Your task to perform on an android device: Open the stopwatch Image 0: 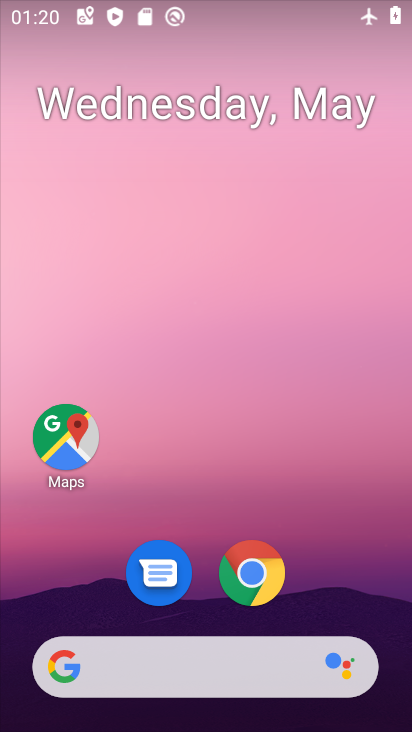
Step 0: drag from (319, 566) to (300, 270)
Your task to perform on an android device: Open the stopwatch Image 1: 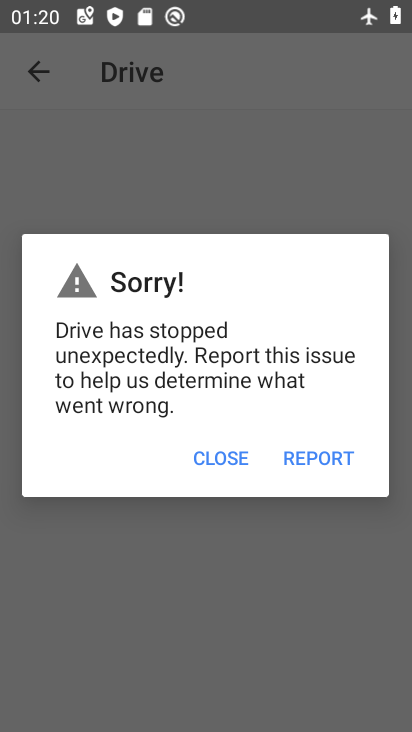
Step 1: drag from (309, 460) to (19, 422)
Your task to perform on an android device: Open the stopwatch Image 2: 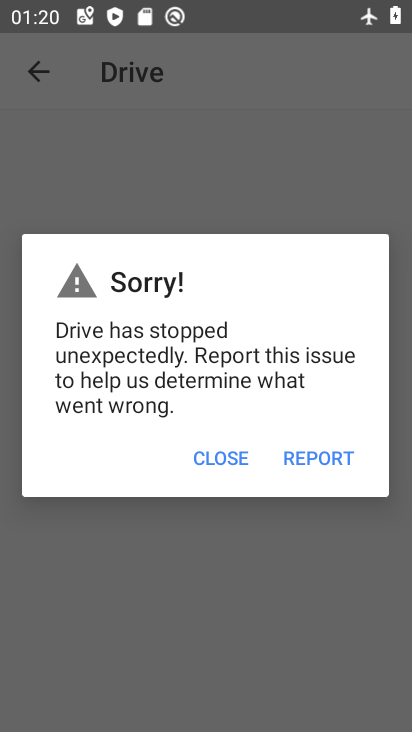
Step 2: press back button
Your task to perform on an android device: Open the stopwatch Image 3: 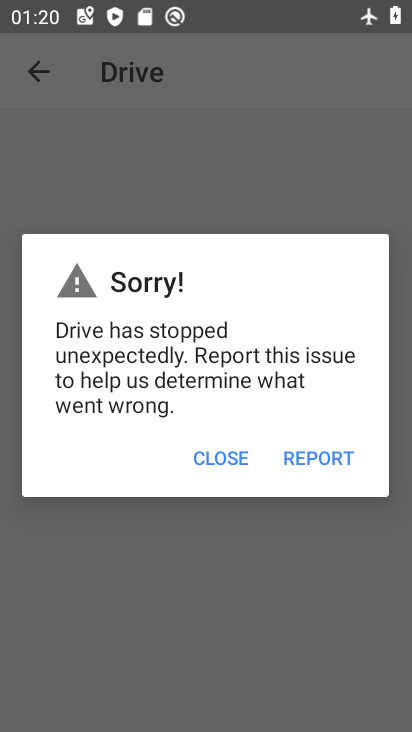
Step 3: click (224, 475)
Your task to perform on an android device: Open the stopwatch Image 4: 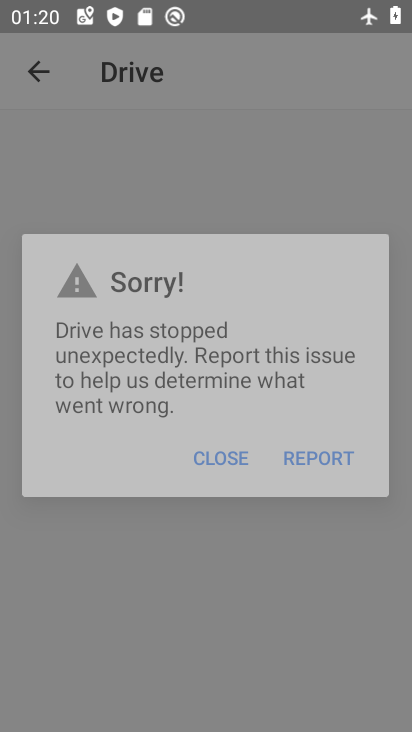
Step 4: click (224, 466)
Your task to perform on an android device: Open the stopwatch Image 5: 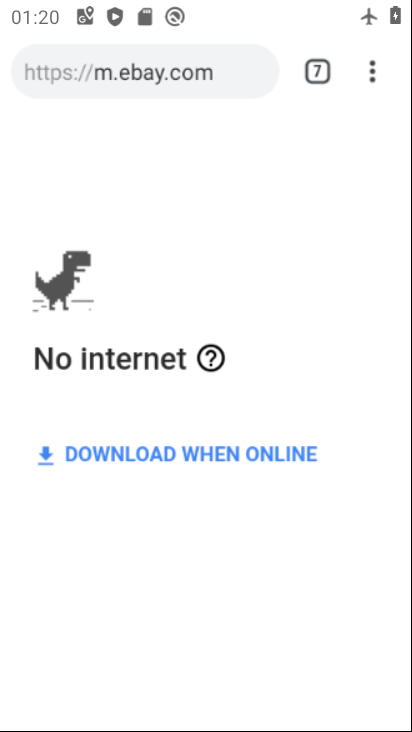
Step 5: drag from (260, 602) to (270, 545)
Your task to perform on an android device: Open the stopwatch Image 6: 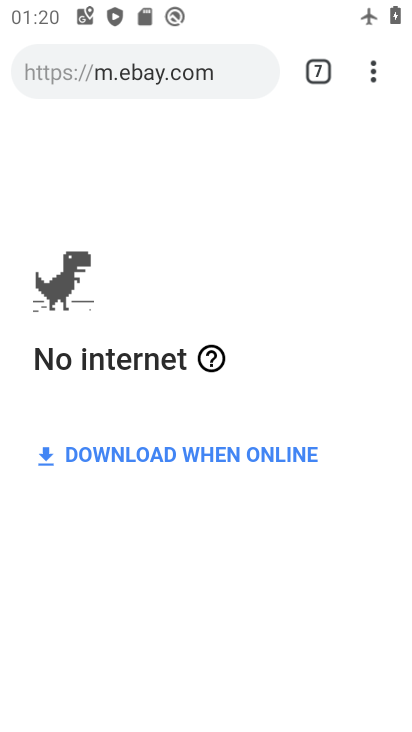
Step 6: press home button
Your task to perform on an android device: Open the stopwatch Image 7: 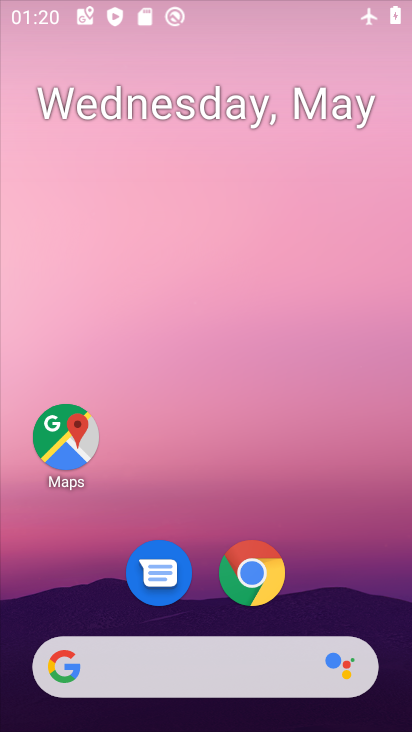
Step 7: drag from (286, 452) to (279, 219)
Your task to perform on an android device: Open the stopwatch Image 8: 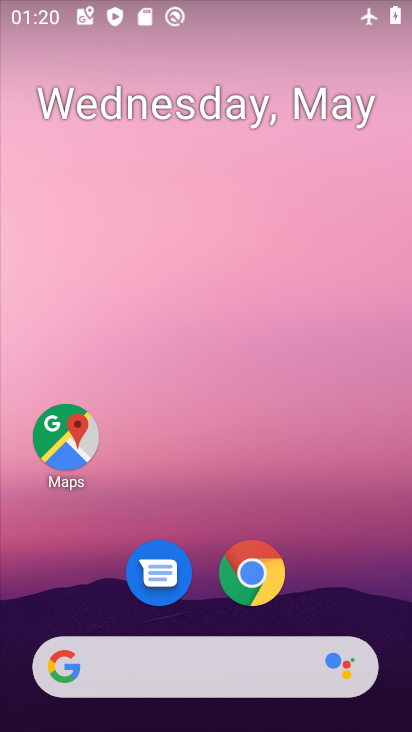
Step 8: drag from (349, 540) to (313, 201)
Your task to perform on an android device: Open the stopwatch Image 9: 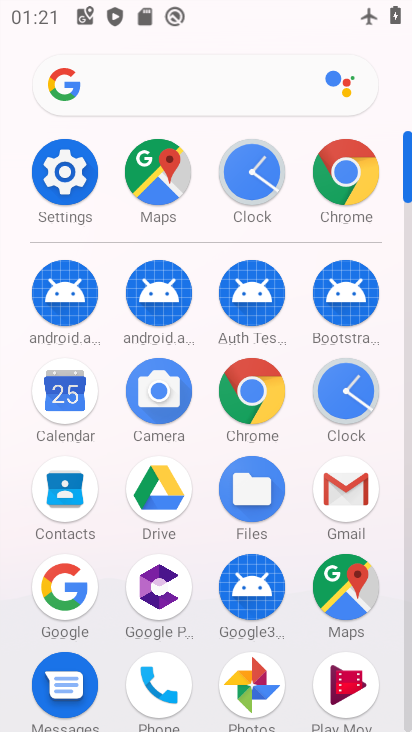
Step 9: click (261, 157)
Your task to perform on an android device: Open the stopwatch Image 10: 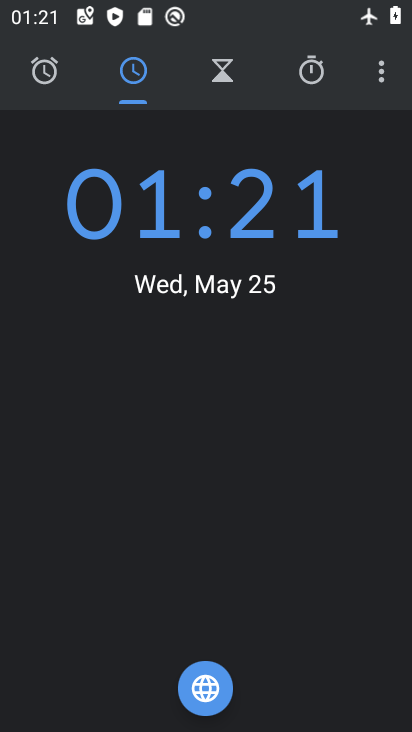
Step 10: click (310, 72)
Your task to perform on an android device: Open the stopwatch Image 11: 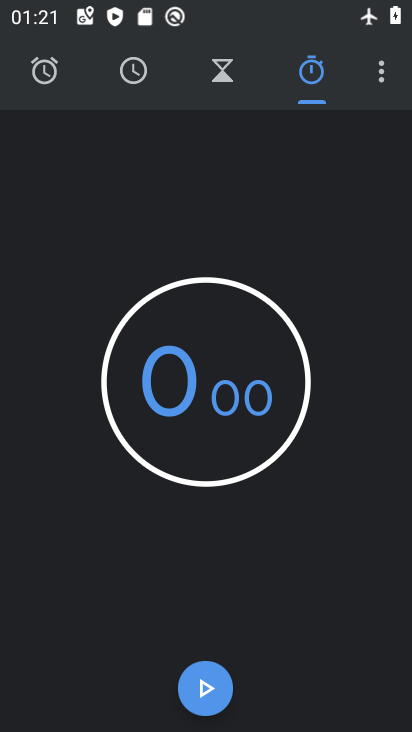
Step 11: task complete